Your task to perform on an android device: turn on javascript in the chrome app Image 0: 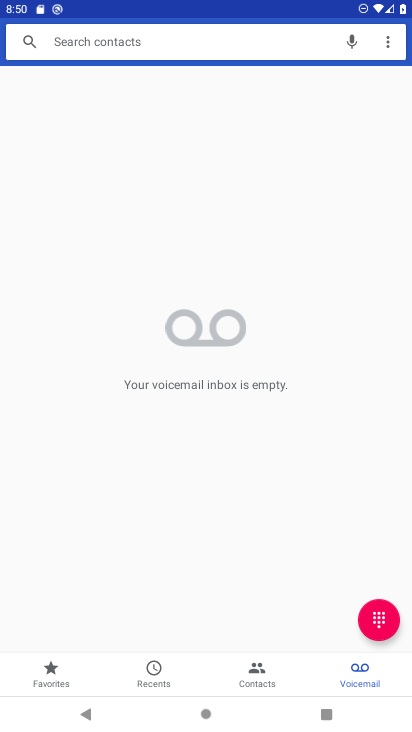
Step 0: press home button
Your task to perform on an android device: turn on javascript in the chrome app Image 1: 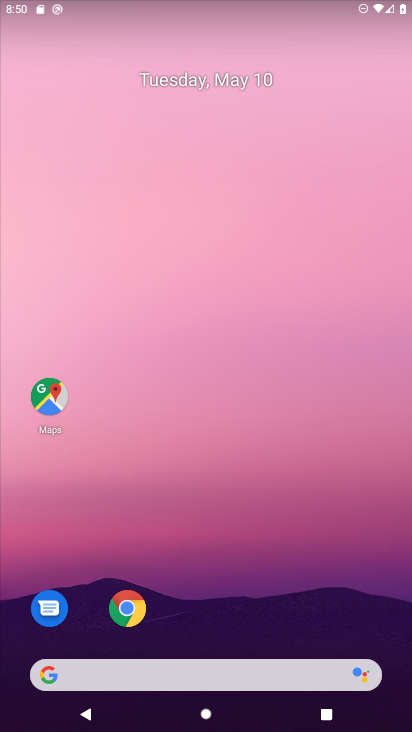
Step 1: drag from (336, 611) to (259, 121)
Your task to perform on an android device: turn on javascript in the chrome app Image 2: 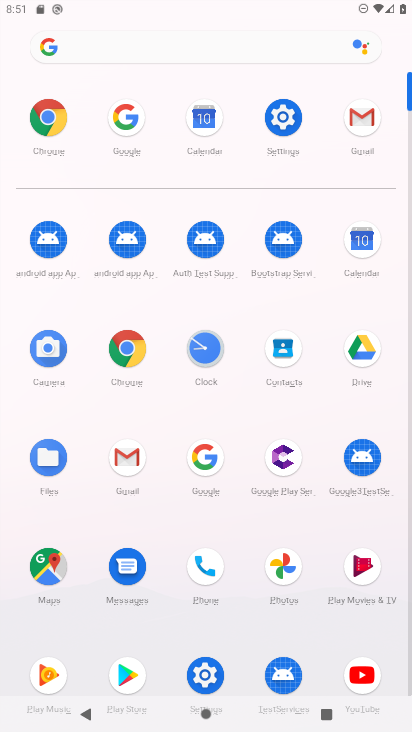
Step 2: click (131, 346)
Your task to perform on an android device: turn on javascript in the chrome app Image 3: 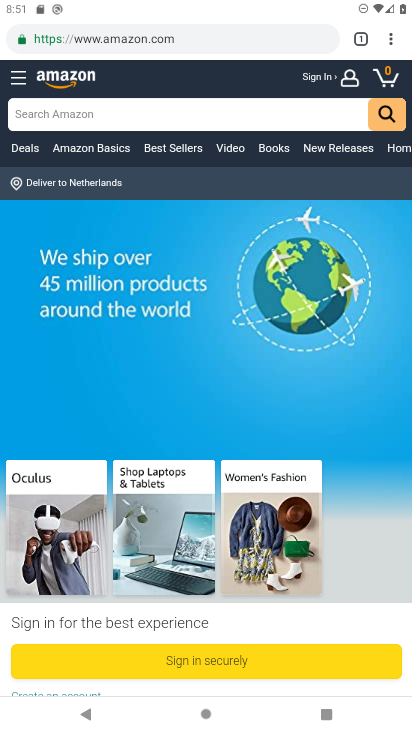
Step 3: press back button
Your task to perform on an android device: turn on javascript in the chrome app Image 4: 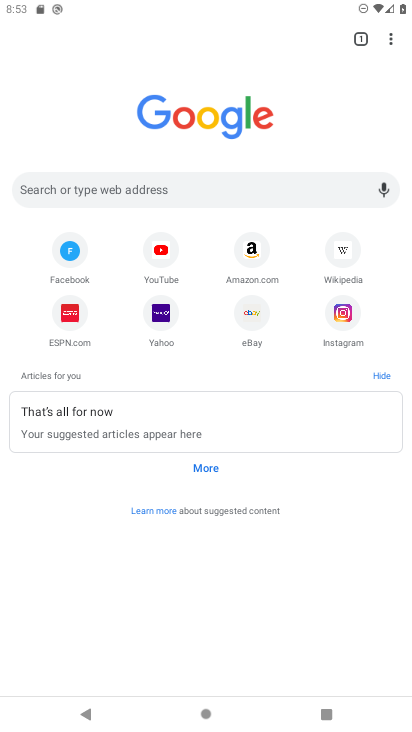
Step 4: click (389, 35)
Your task to perform on an android device: turn on javascript in the chrome app Image 5: 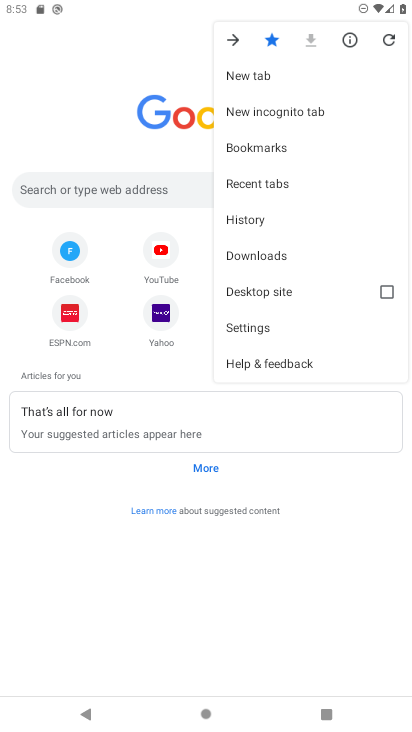
Step 5: click (274, 324)
Your task to perform on an android device: turn on javascript in the chrome app Image 6: 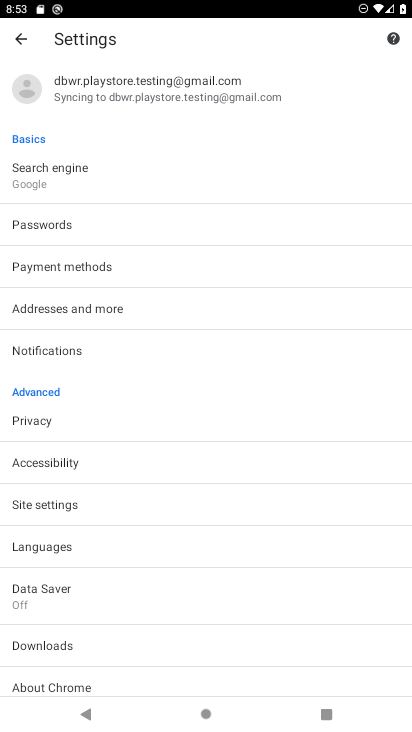
Step 6: click (97, 511)
Your task to perform on an android device: turn on javascript in the chrome app Image 7: 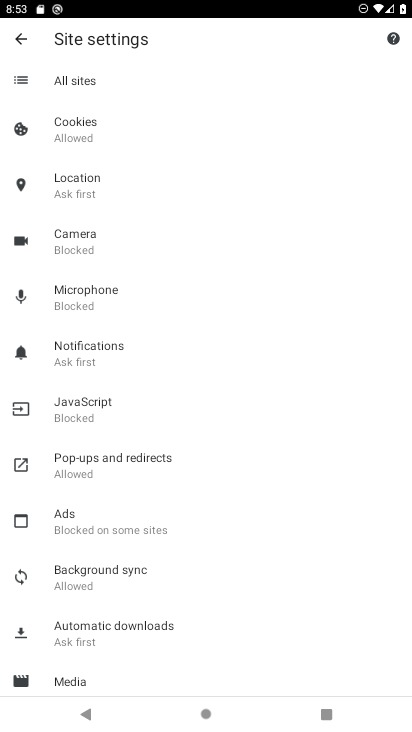
Step 7: click (111, 420)
Your task to perform on an android device: turn on javascript in the chrome app Image 8: 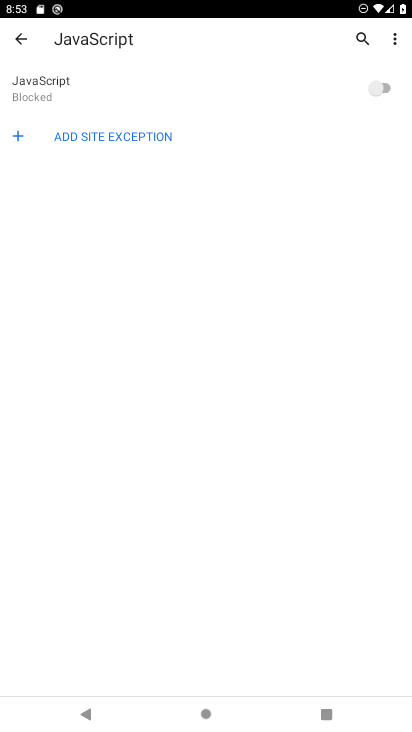
Step 8: click (282, 81)
Your task to perform on an android device: turn on javascript in the chrome app Image 9: 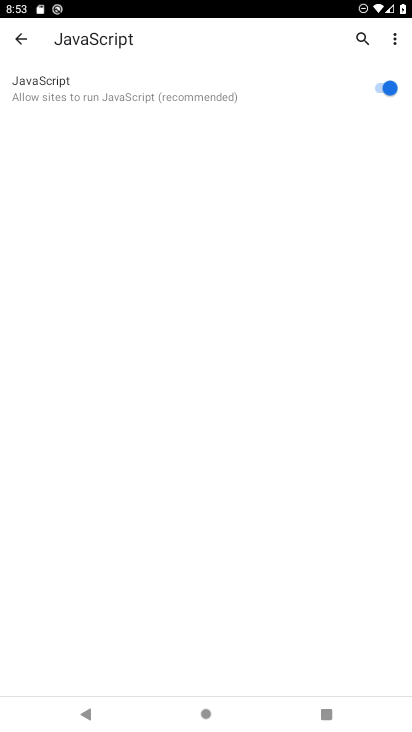
Step 9: task complete